Your task to perform on an android device: open chrome privacy settings Image 0: 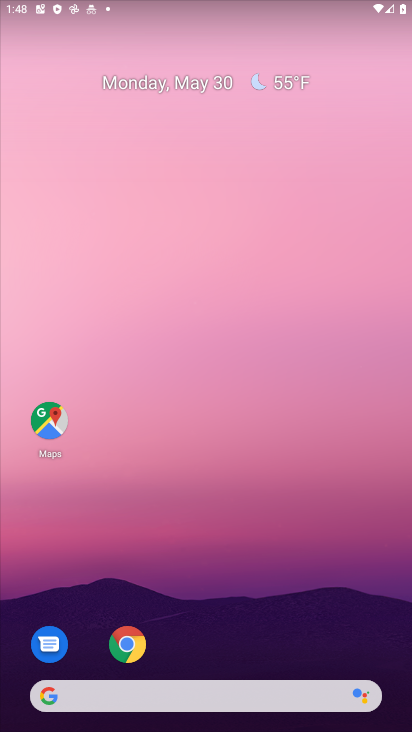
Step 0: click (127, 646)
Your task to perform on an android device: open chrome privacy settings Image 1: 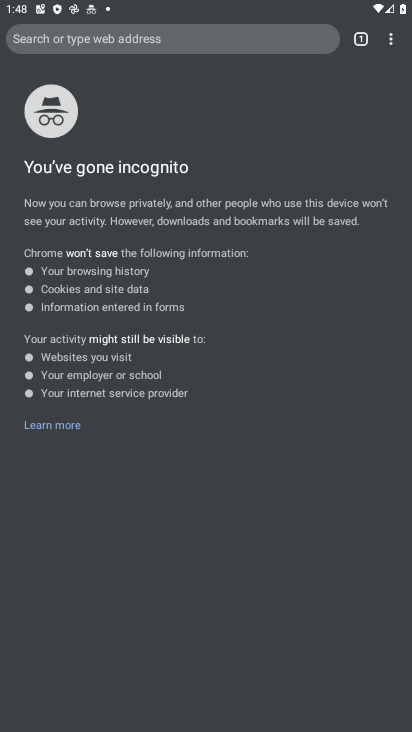
Step 1: click (398, 35)
Your task to perform on an android device: open chrome privacy settings Image 2: 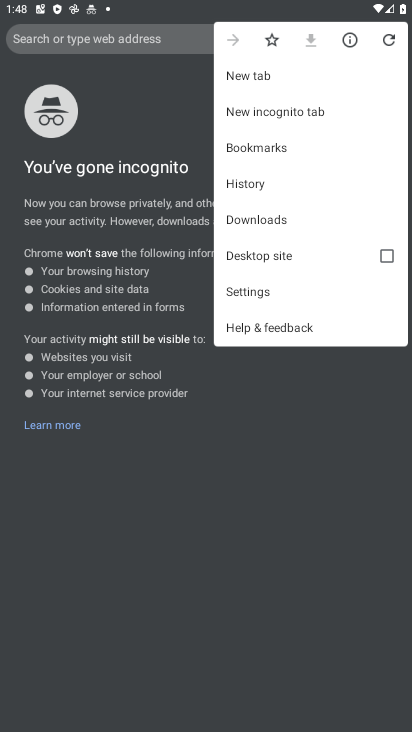
Step 2: click (296, 293)
Your task to perform on an android device: open chrome privacy settings Image 3: 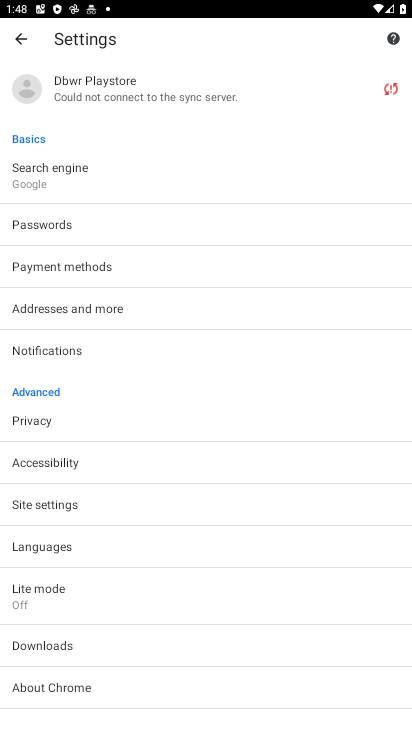
Step 3: click (142, 434)
Your task to perform on an android device: open chrome privacy settings Image 4: 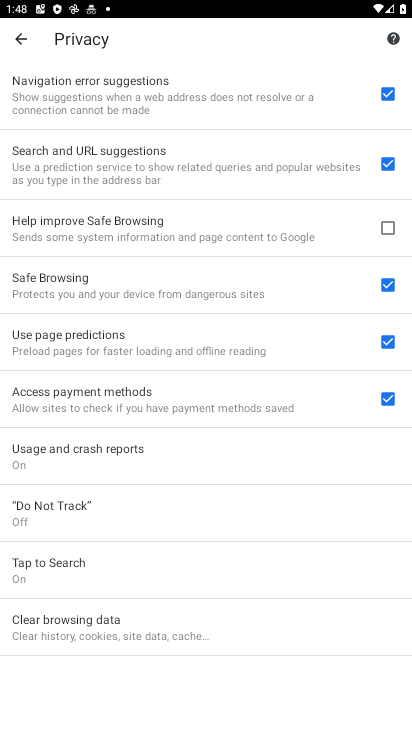
Step 4: task complete